Your task to perform on an android device: Check the settings for the Amazon Prime Video app Image 0: 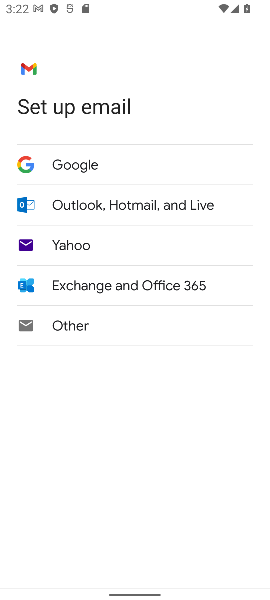
Step 0: press home button
Your task to perform on an android device: Check the settings for the Amazon Prime Video app Image 1: 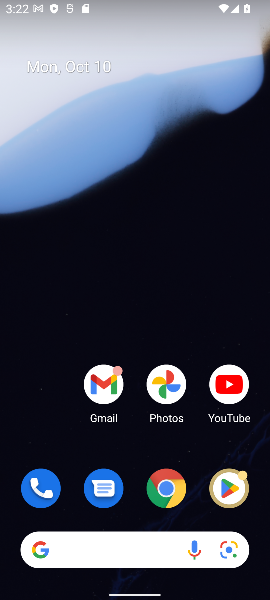
Step 1: task complete